Your task to perform on an android device: remove spam from my inbox in the gmail app Image 0: 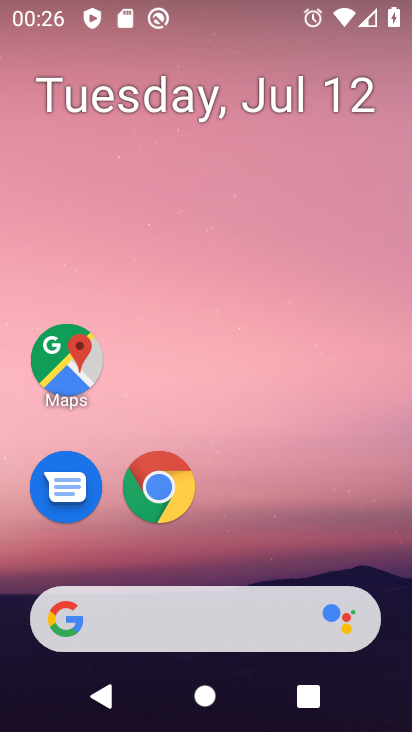
Step 0: drag from (352, 558) to (392, 190)
Your task to perform on an android device: remove spam from my inbox in the gmail app Image 1: 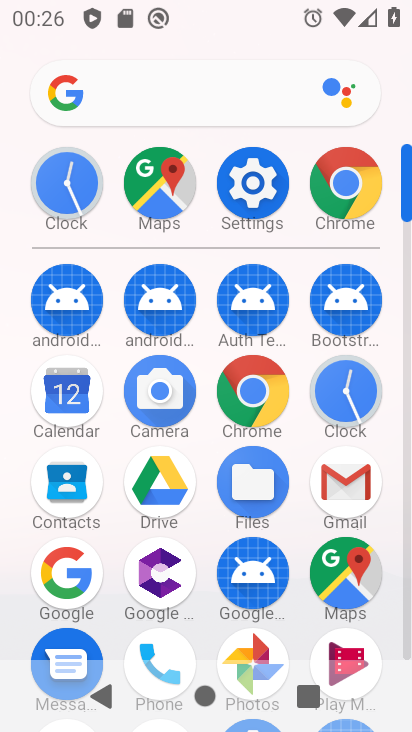
Step 1: click (347, 484)
Your task to perform on an android device: remove spam from my inbox in the gmail app Image 2: 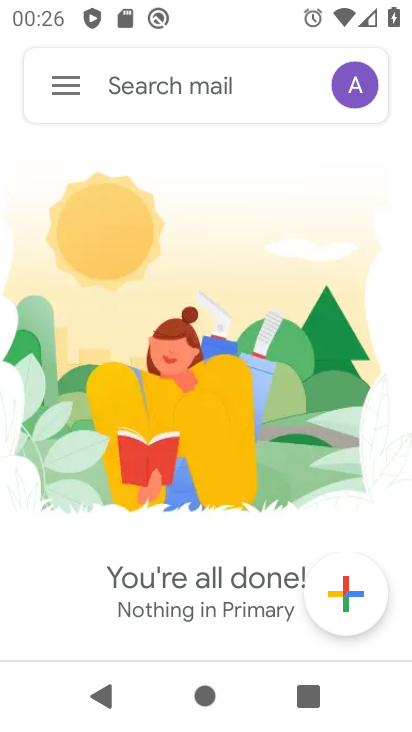
Step 2: click (63, 76)
Your task to perform on an android device: remove spam from my inbox in the gmail app Image 3: 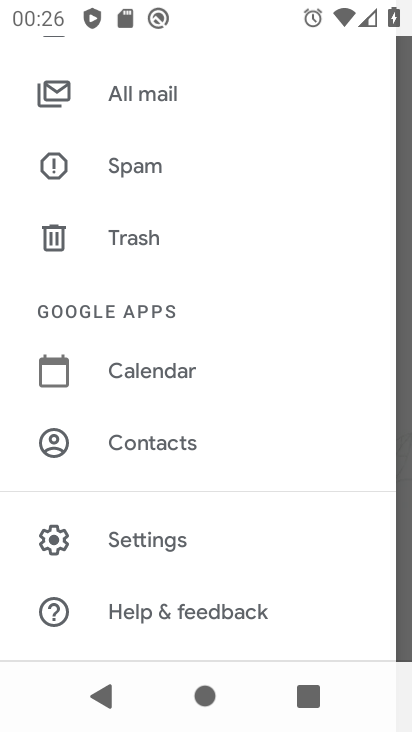
Step 3: drag from (293, 460) to (304, 277)
Your task to perform on an android device: remove spam from my inbox in the gmail app Image 4: 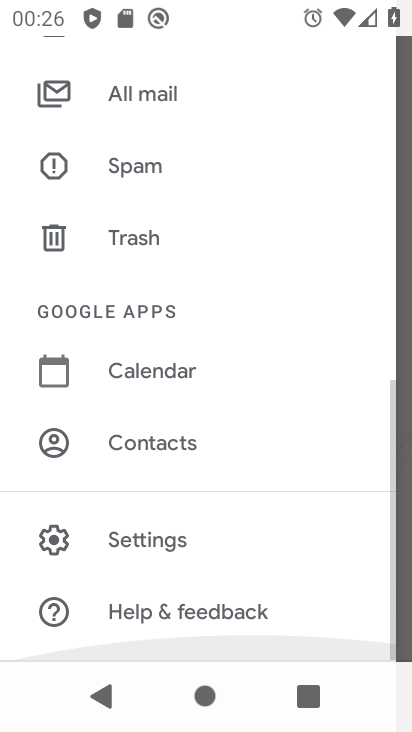
Step 4: drag from (287, 130) to (292, 322)
Your task to perform on an android device: remove spam from my inbox in the gmail app Image 5: 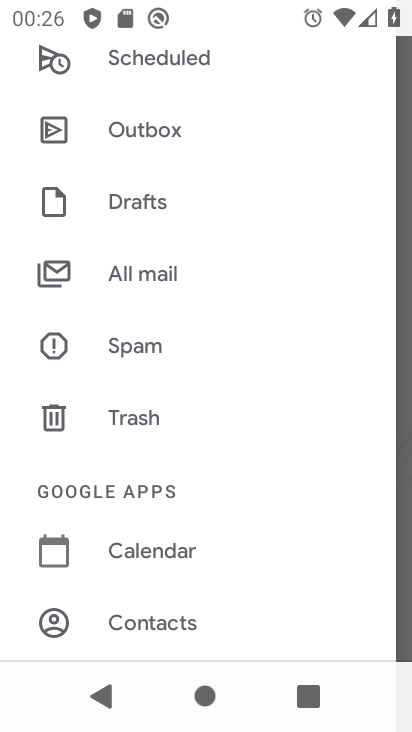
Step 5: click (150, 350)
Your task to perform on an android device: remove spam from my inbox in the gmail app Image 6: 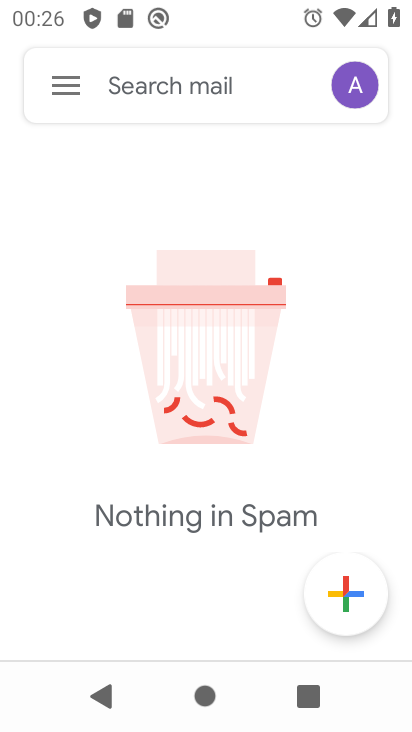
Step 6: task complete